Your task to perform on an android device: set an alarm Image 0: 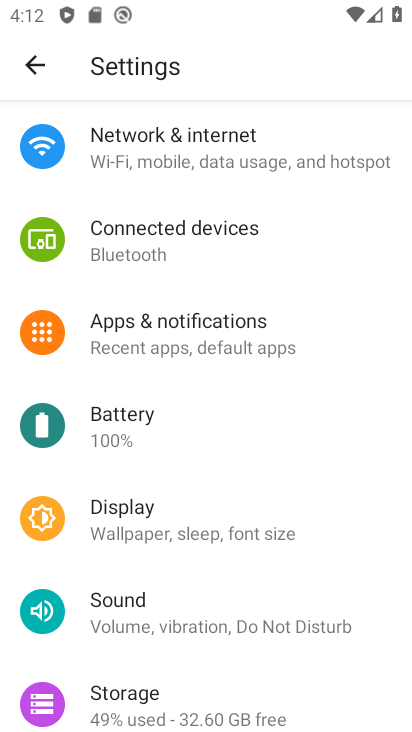
Step 0: press home button
Your task to perform on an android device: set an alarm Image 1: 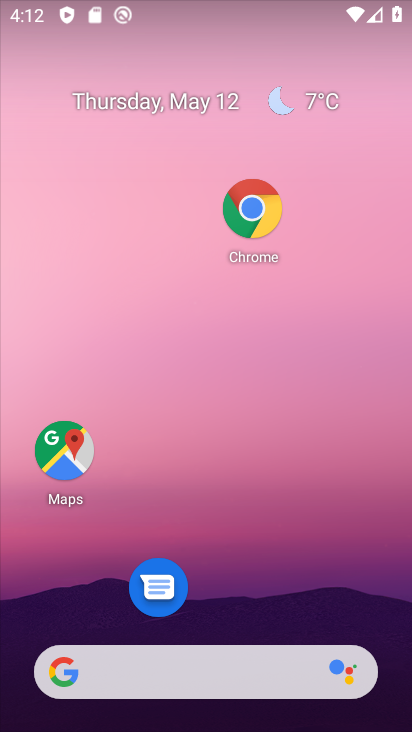
Step 1: drag from (224, 594) to (229, 230)
Your task to perform on an android device: set an alarm Image 2: 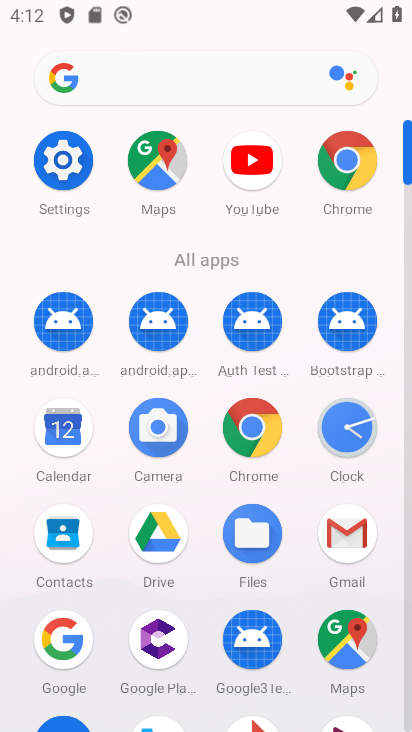
Step 2: click (366, 443)
Your task to perform on an android device: set an alarm Image 3: 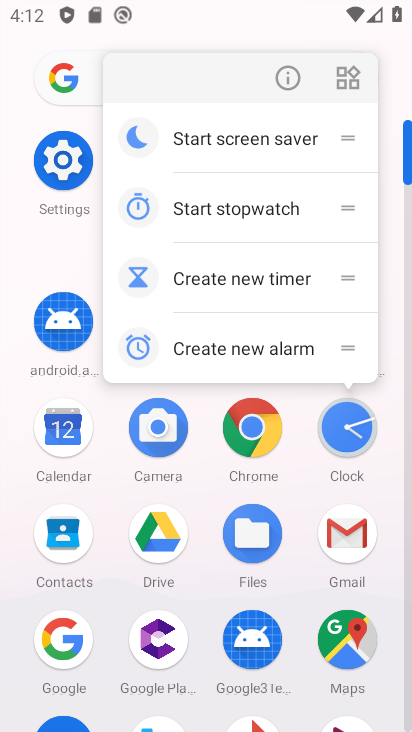
Step 3: click (358, 439)
Your task to perform on an android device: set an alarm Image 4: 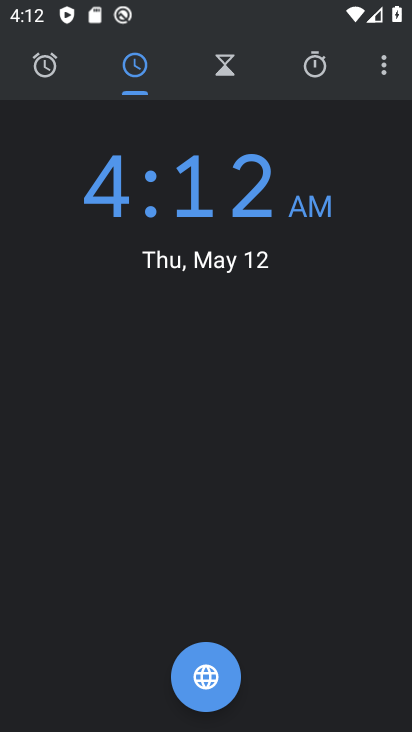
Step 4: click (42, 72)
Your task to perform on an android device: set an alarm Image 5: 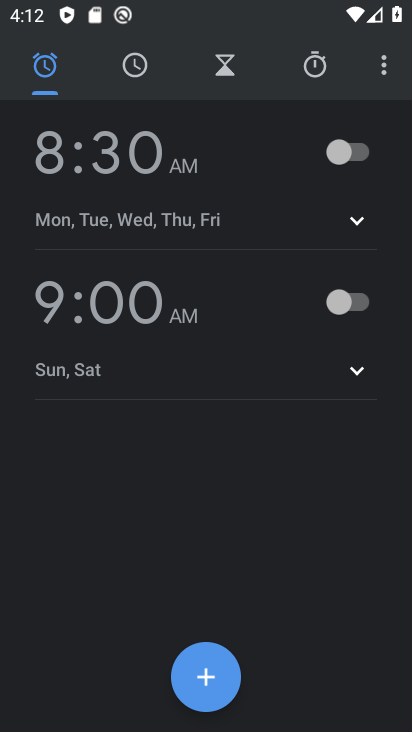
Step 5: click (361, 148)
Your task to perform on an android device: set an alarm Image 6: 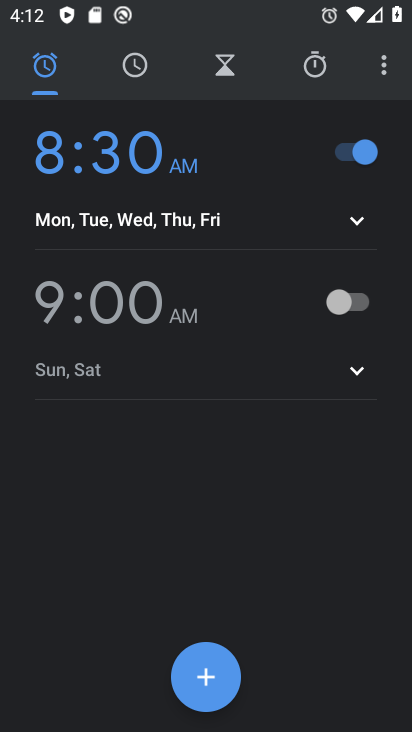
Step 6: task complete